Your task to perform on an android device: star an email in the gmail app Image 0: 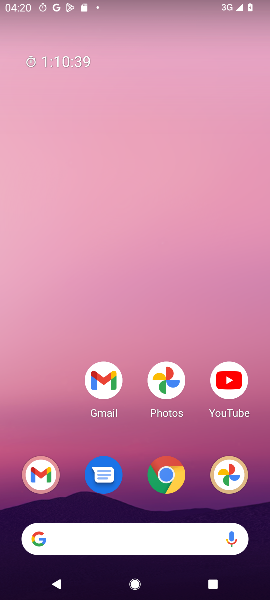
Step 0: press home button
Your task to perform on an android device: star an email in the gmail app Image 1: 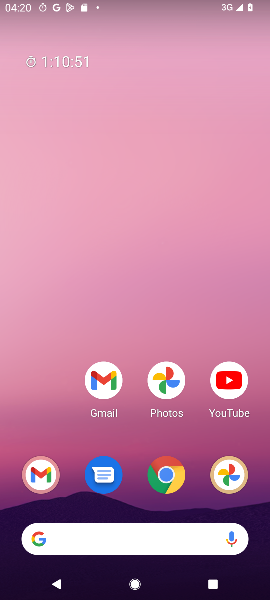
Step 1: drag from (62, 437) to (59, 249)
Your task to perform on an android device: star an email in the gmail app Image 2: 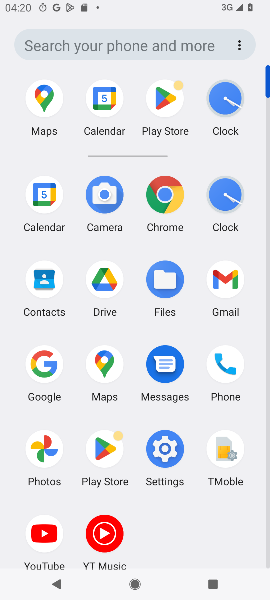
Step 2: click (226, 274)
Your task to perform on an android device: star an email in the gmail app Image 3: 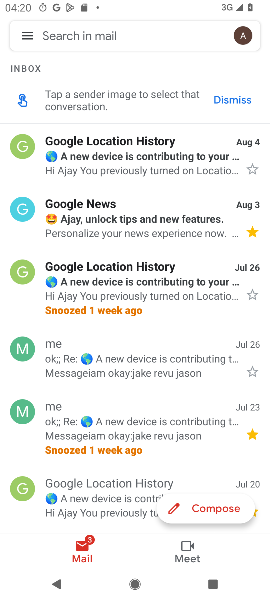
Step 3: click (254, 373)
Your task to perform on an android device: star an email in the gmail app Image 4: 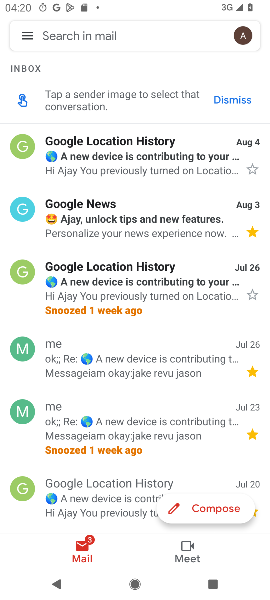
Step 4: task complete